Your task to perform on an android device: Open Chrome and go to settings Image 0: 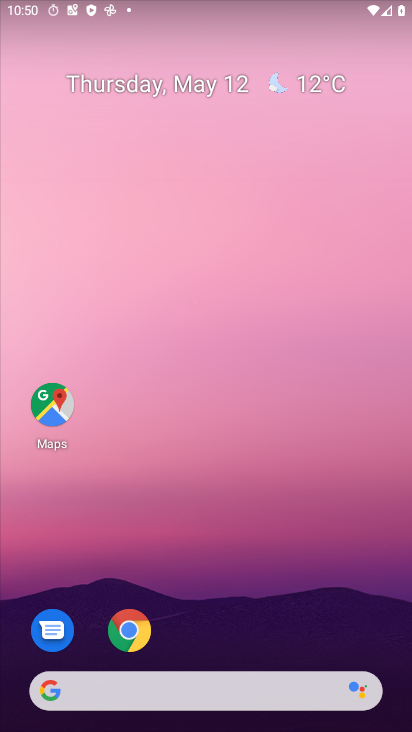
Step 0: click (129, 642)
Your task to perform on an android device: Open Chrome and go to settings Image 1: 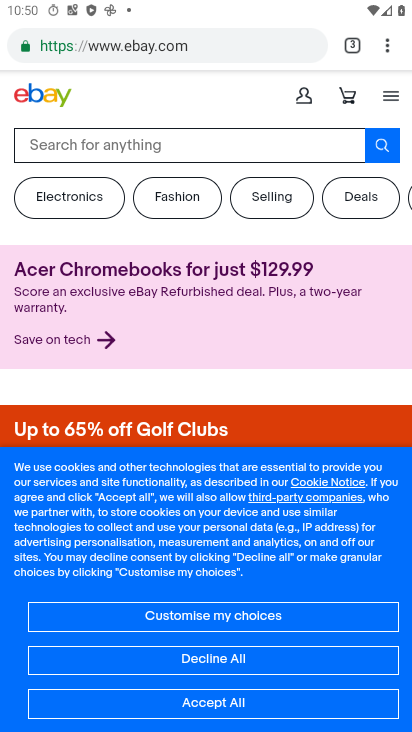
Step 1: task complete